Your task to perform on an android device: check storage Image 0: 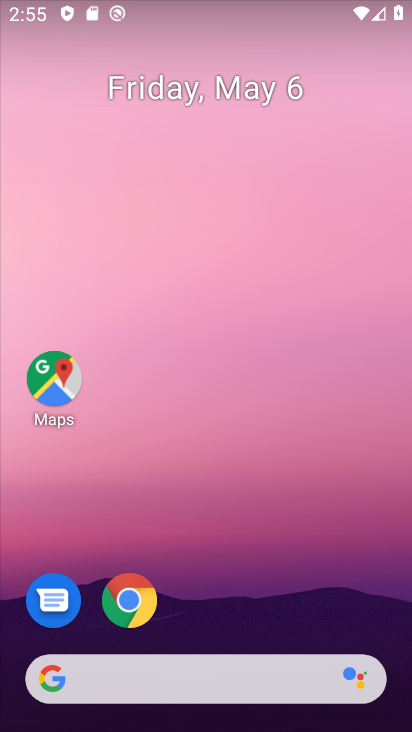
Step 0: drag from (293, 649) to (272, 170)
Your task to perform on an android device: check storage Image 1: 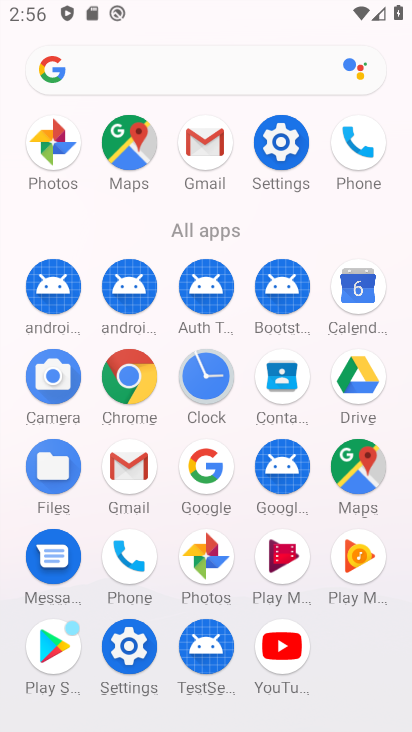
Step 1: click (128, 638)
Your task to perform on an android device: check storage Image 2: 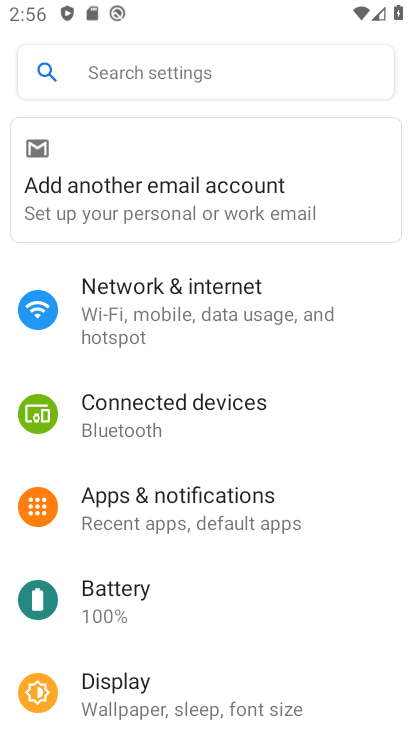
Step 2: drag from (207, 668) to (231, 186)
Your task to perform on an android device: check storage Image 3: 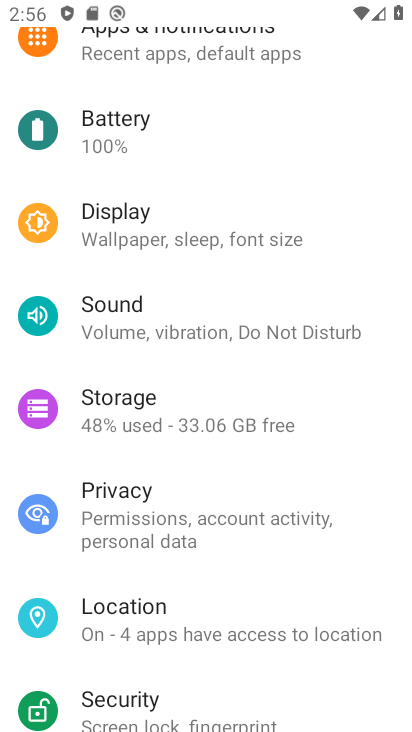
Step 3: click (120, 422)
Your task to perform on an android device: check storage Image 4: 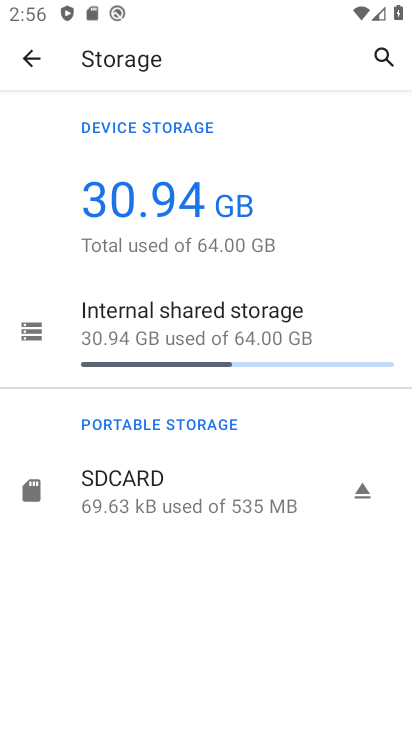
Step 4: click (151, 337)
Your task to perform on an android device: check storage Image 5: 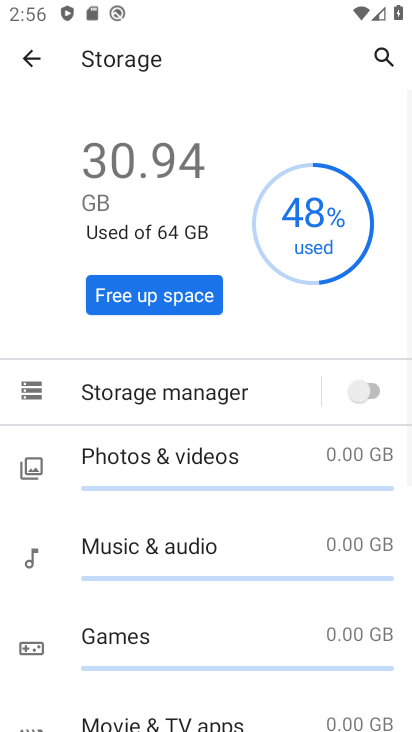
Step 5: task complete